Your task to perform on an android device: turn on the 24-hour format for clock Image 0: 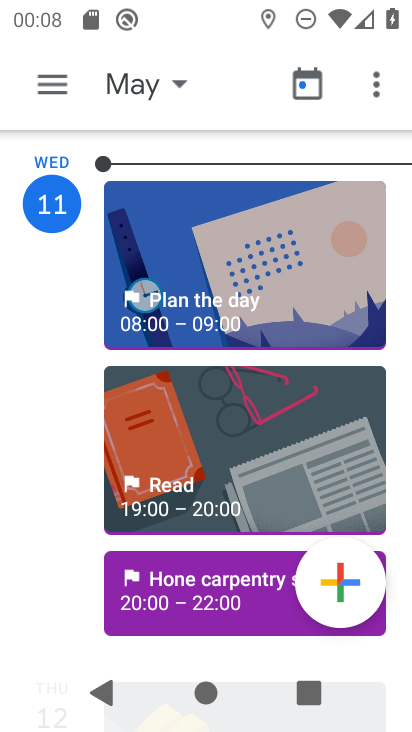
Step 0: press home button
Your task to perform on an android device: turn on the 24-hour format for clock Image 1: 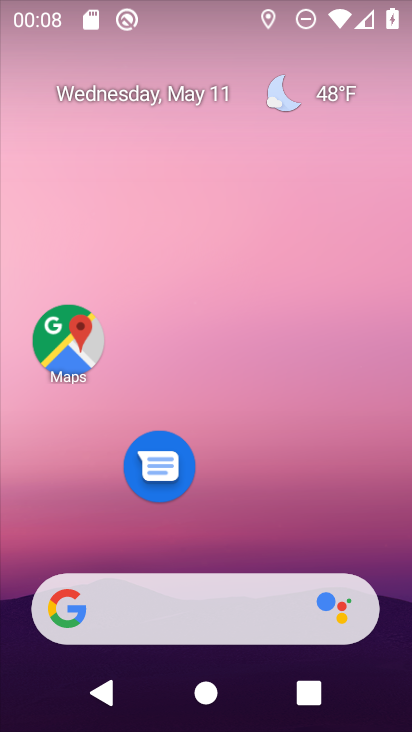
Step 1: drag from (253, 540) to (280, 22)
Your task to perform on an android device: turn on the 24-hour format for clock Image 2: 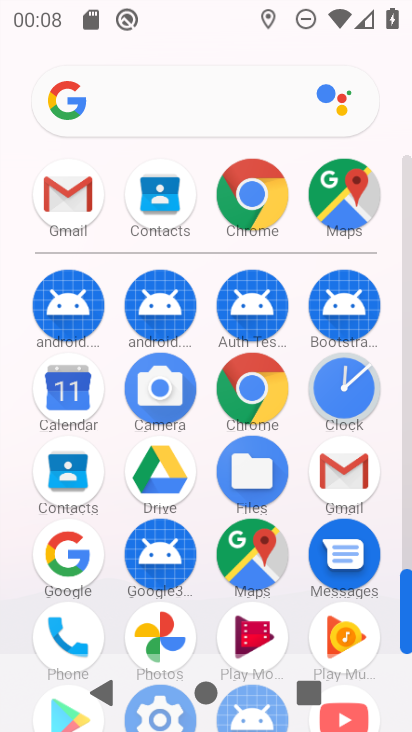
Step 2: click (330, 396)
Your task to perform on an android device: turn on the 24-hour format for clock Image 3: 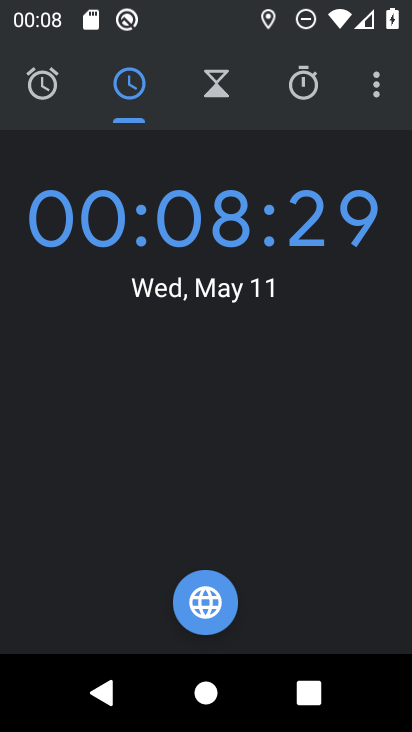
Step 3: click (367, 78)
Your task to perform on an android device: turn on the 24-hour format for clock Image 4: 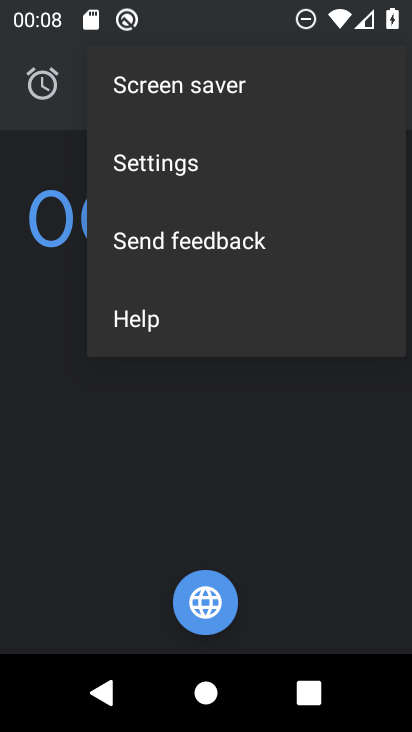
Step 4: click (253, 172)
Your task to perform on an android device: turn on the 24-hour format for clock Image 5: 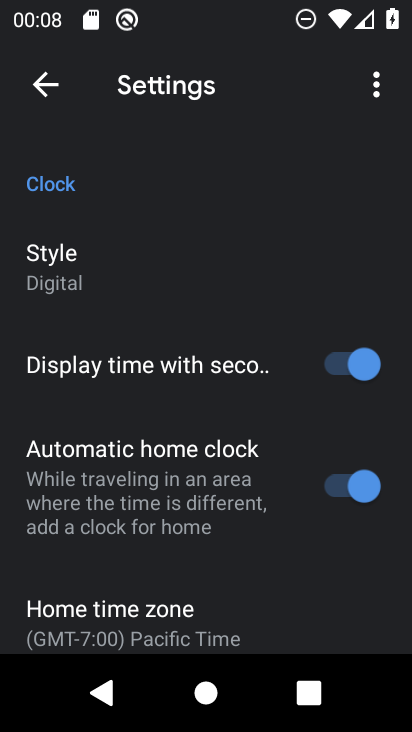
Step 5: drag from (121, 546) to (124, 310)
Your task to perform on an android device: turn on the 24-hour format for clock Image 6: 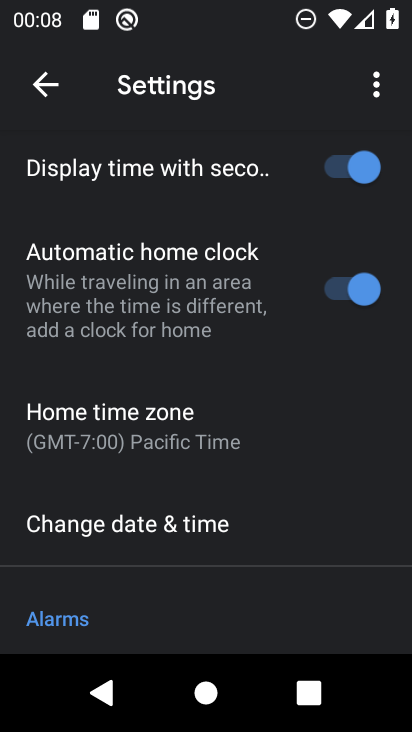
Step 6: click (181, 526)
Your task to perform on an android device: turn on the 24-hour format for clock Image 7: 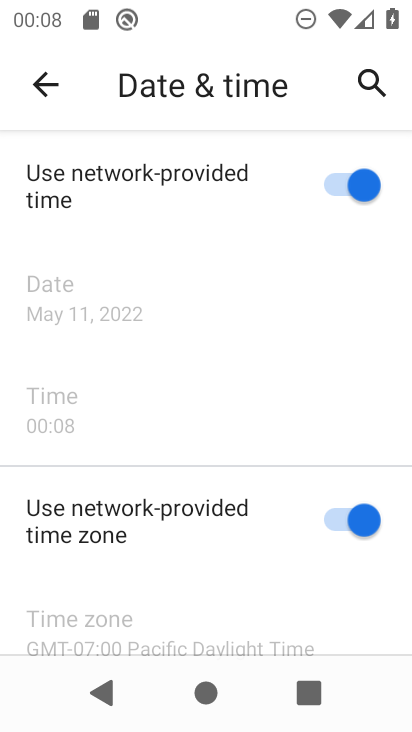
Step 7: task complete